Your task to perform on an android device: install app "Instagram" Image 0: 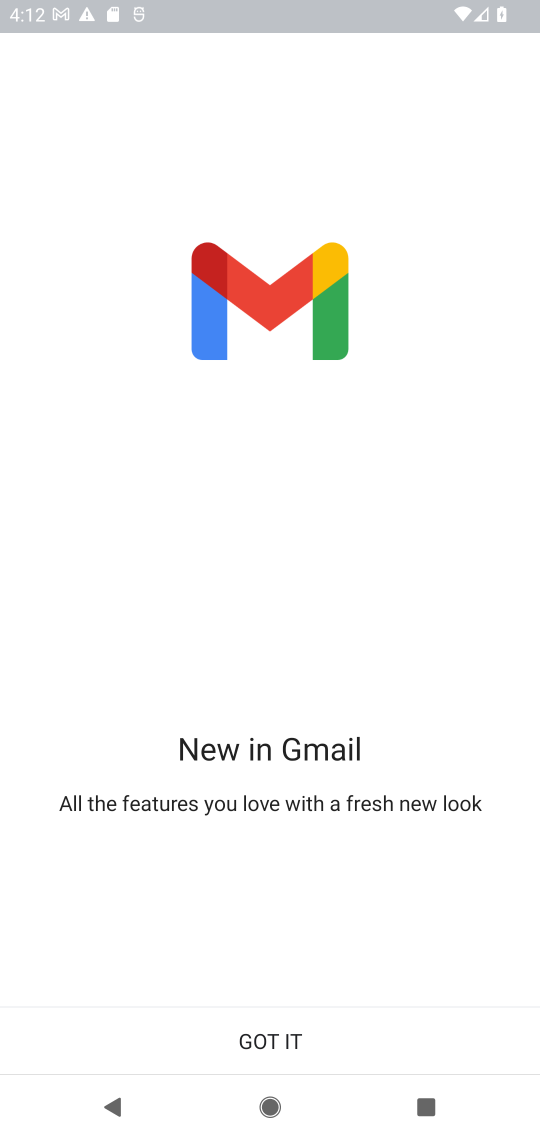
Step 0: press home button
Your task to perform on an android device: install app "Instagram" Image 1: 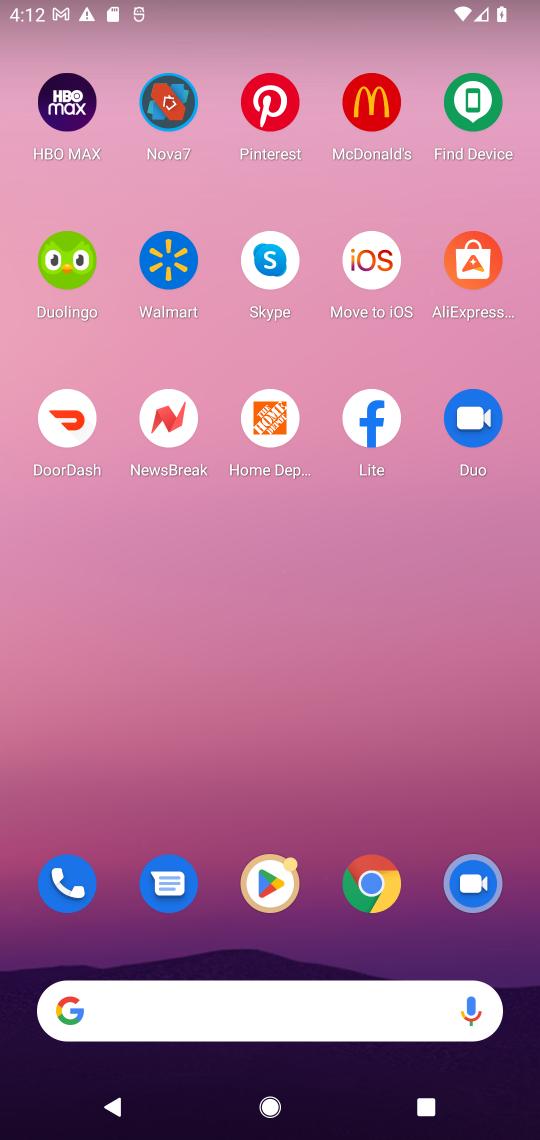
Step 1: drag from (153, 1002) to (146, 447)
Your task to perform on an android device: install app "Instagram" Image 2: 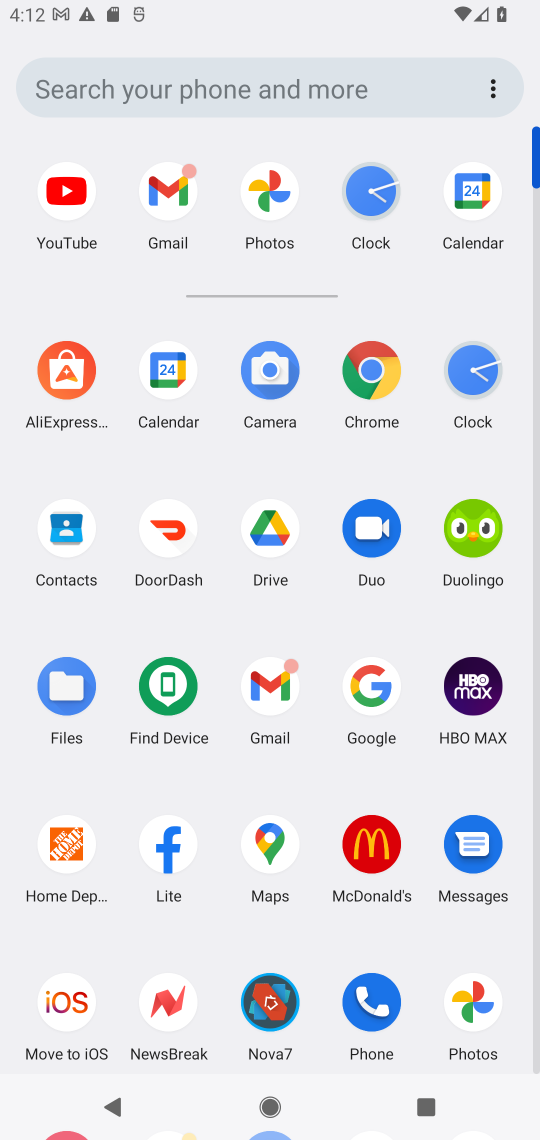
Step 2: drag from (327, 1002) to (327, 424)
Your task to perform on an android device: install app "Instagram" Image 3: 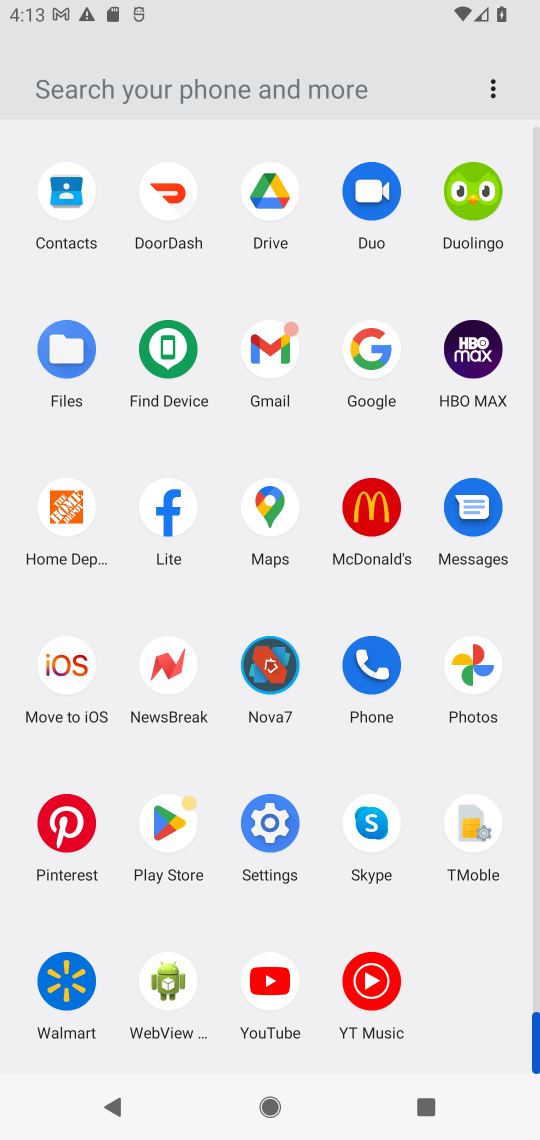
Step 3: click (172, 836)
Your task to perform on an android device: install app "Instagram" Image 4: 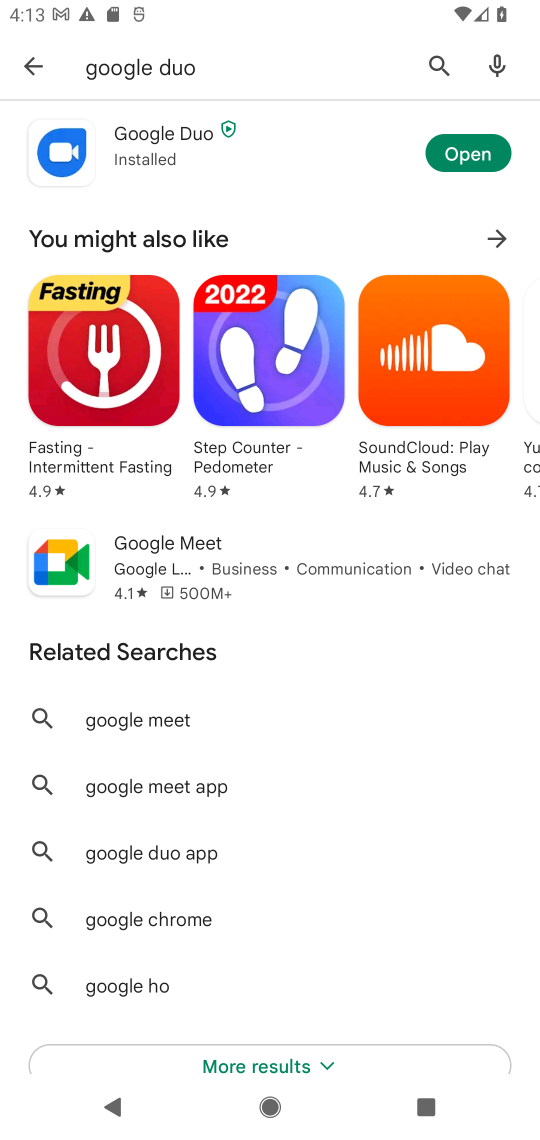
Step 4: click (440, 61)
Your task to perform on an android device: install app "Instagram" Image 5: 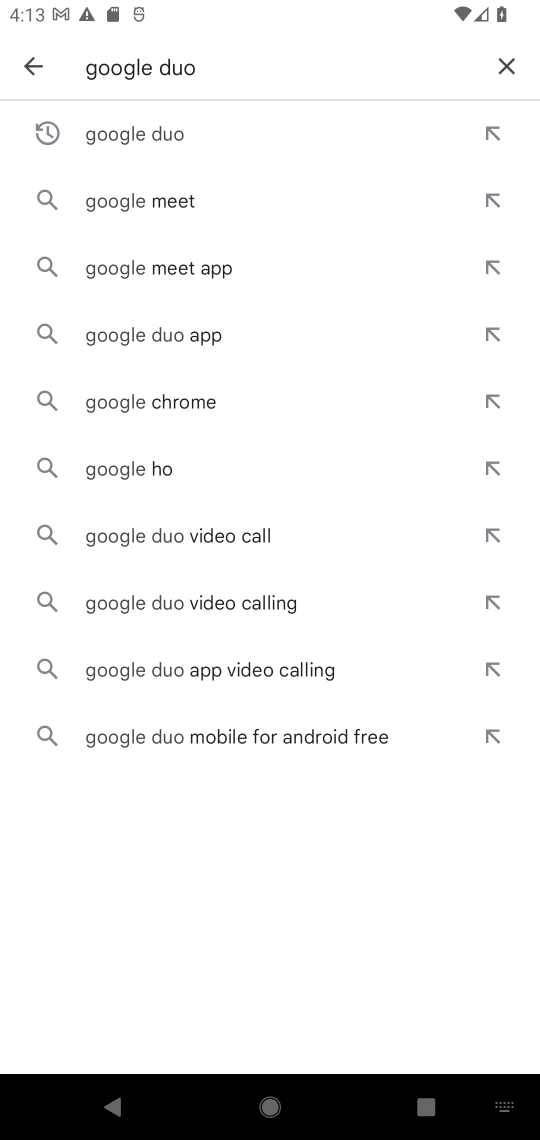
Step 5: click (499, 69)
Your task to perform on an android device: install app "Instagram" Image 6: 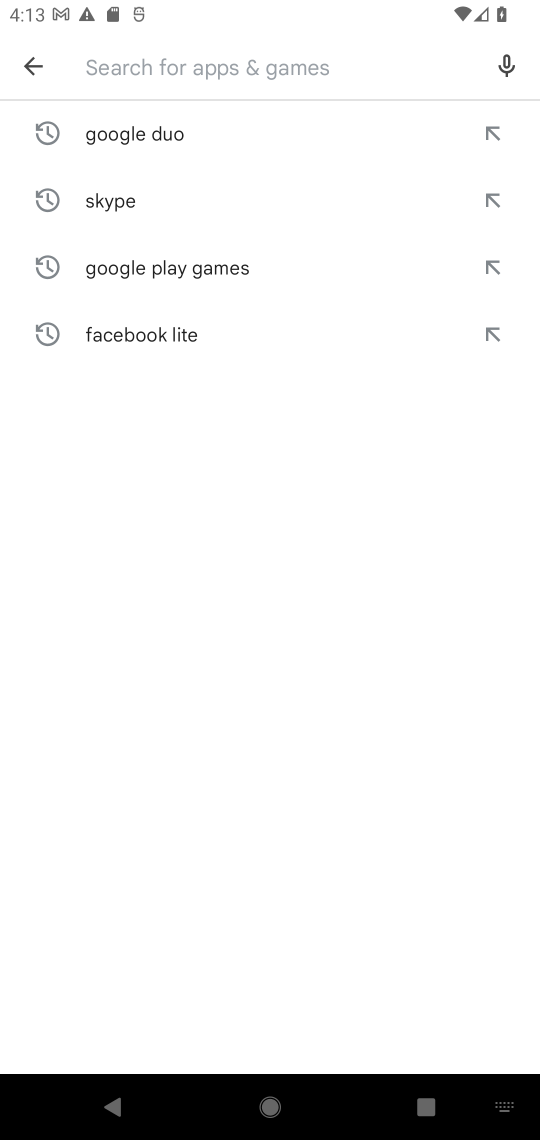
Step 6: type "Instagram"
Your task to perform on an android device: install app "Instagram" Image 7: 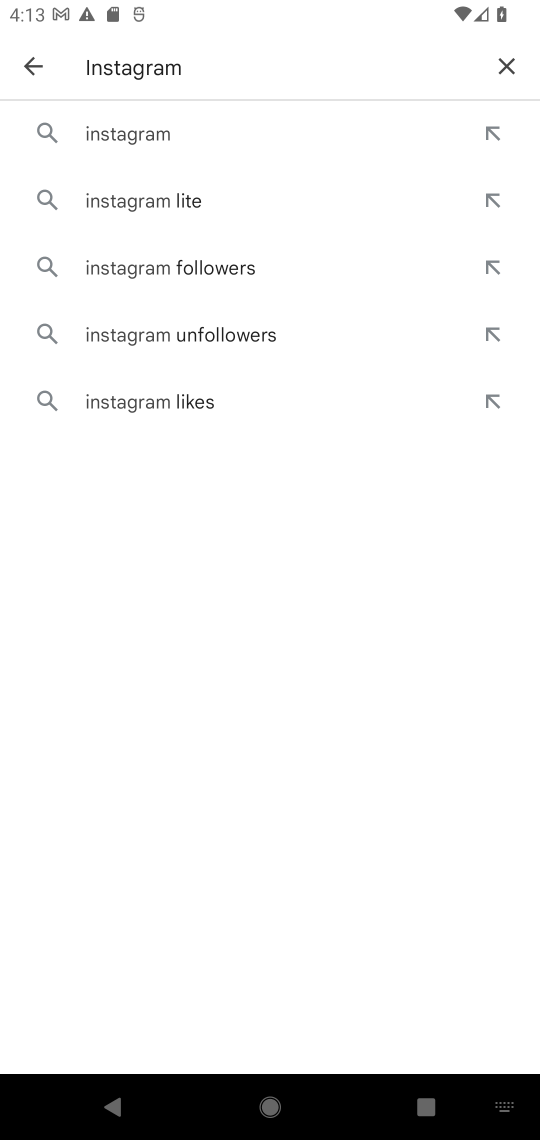
Step 7: click (125, 146)
Your task to perform on an android device: install app "Instagram" Image 8: 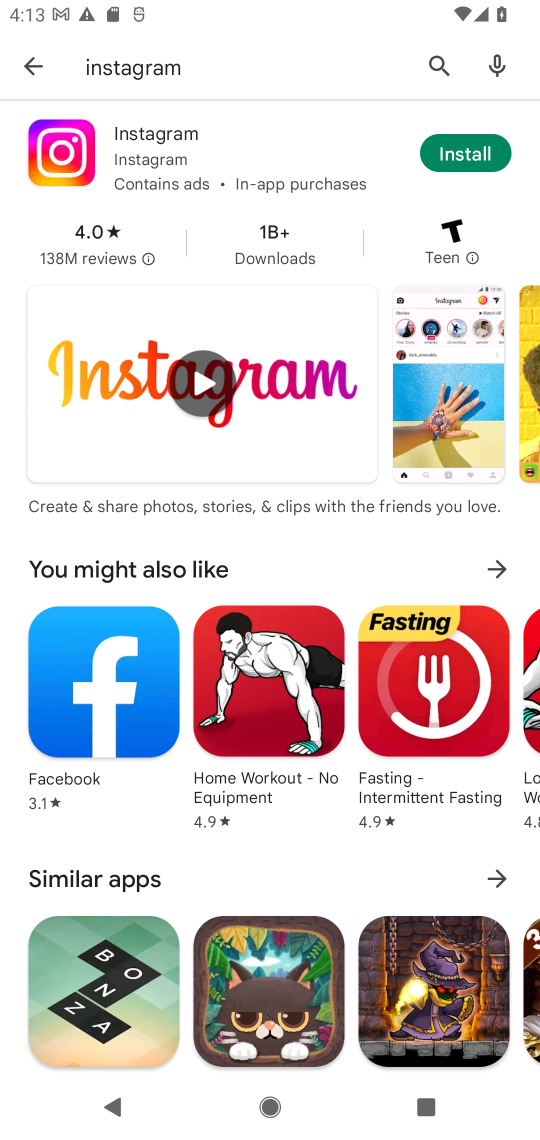
Step 8: click (432, 154)
Your task to perform on an android device: install app "Instagram" Image 9: 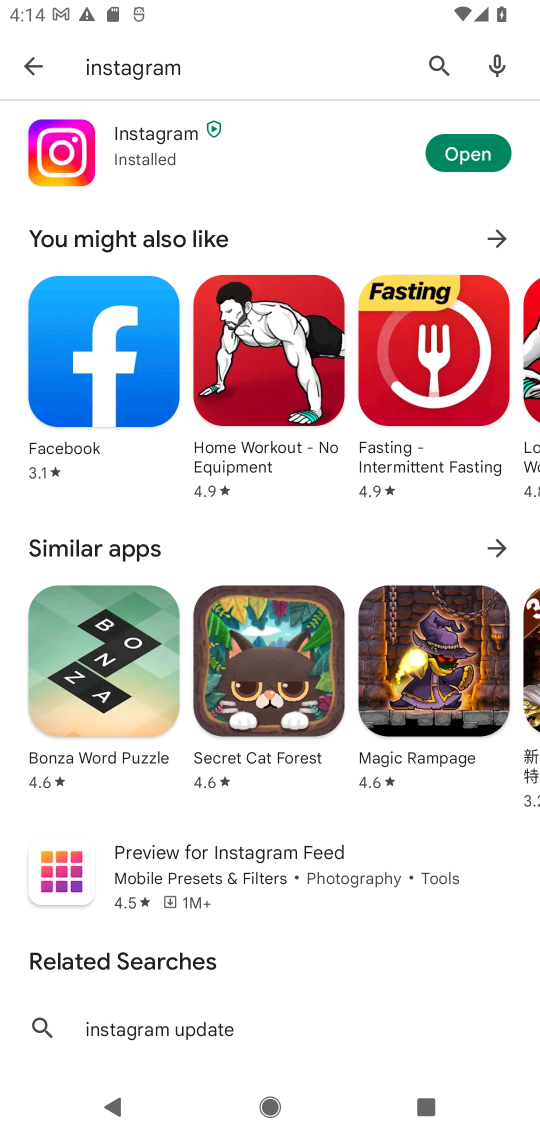
Step 9: click (431, 144)
Your task to perform on an android device: install app "Instagram" Image 10: 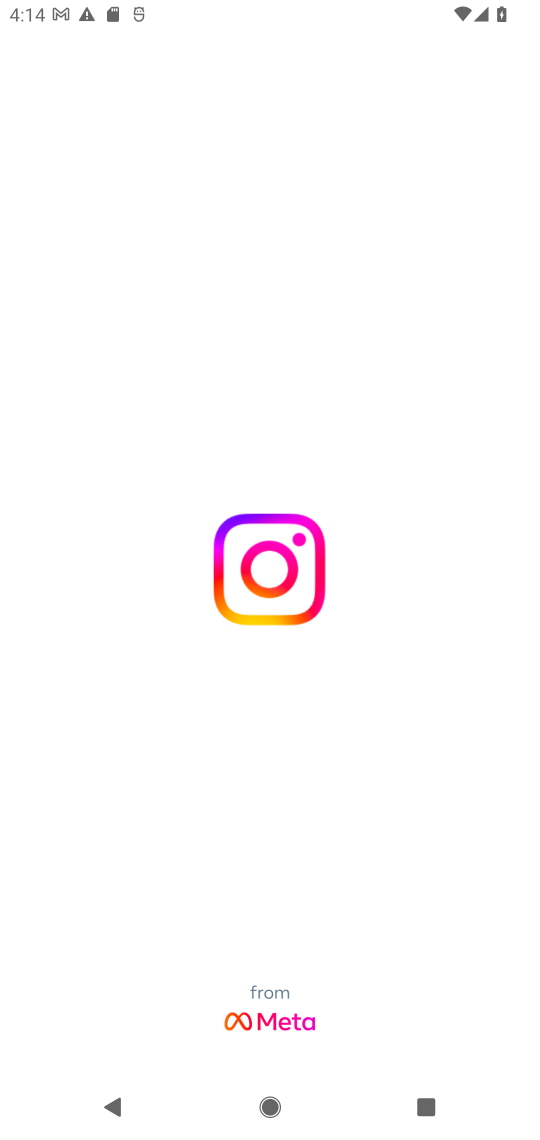
Step 10: task complete